Your task to perform on an android device: open a bookmark in the chrome app Image 0: 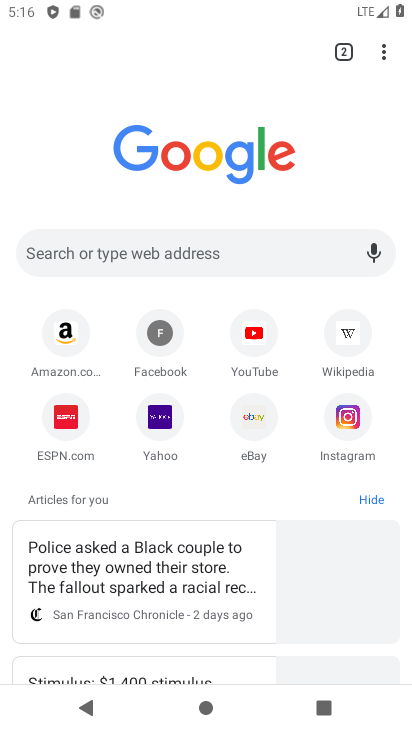
Step 0: press home button
Your task to perform on an android device: open a bookmark in the chrome app Image 1: 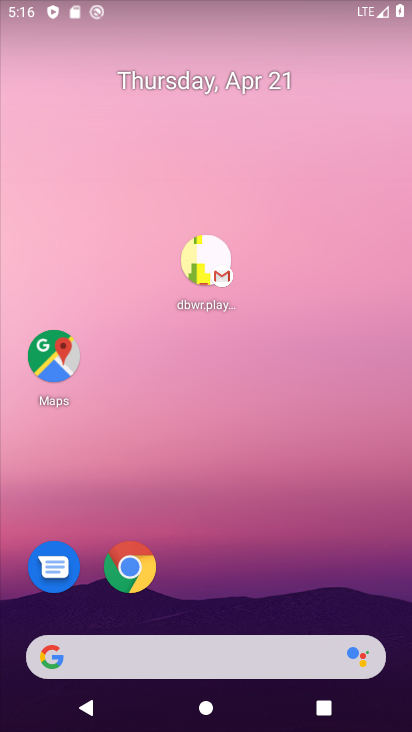
Step 1: click (121, 569)
Your task to perform on an android device: open a bookmark in the chrome app Image 2: 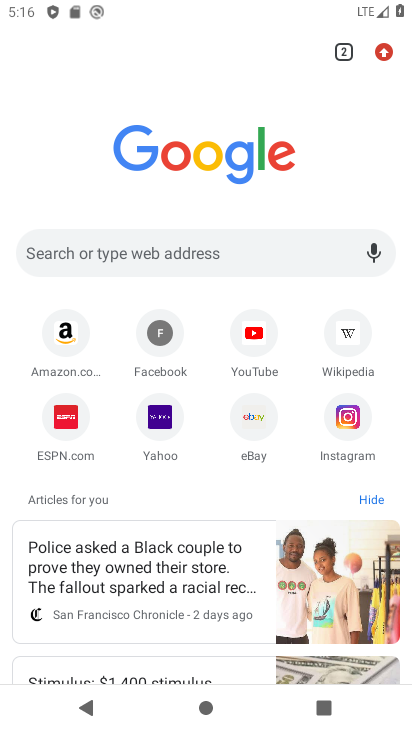
Step 2: click (354, 419)
Your task to perform on an android device: open a bookmark in the chrome app Image 3: 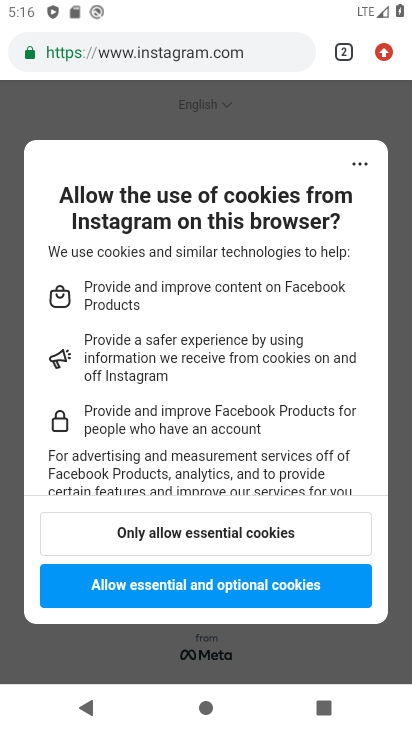
Step 3: task complete